Your task to perform on an android device: Open battery settings Image 0: 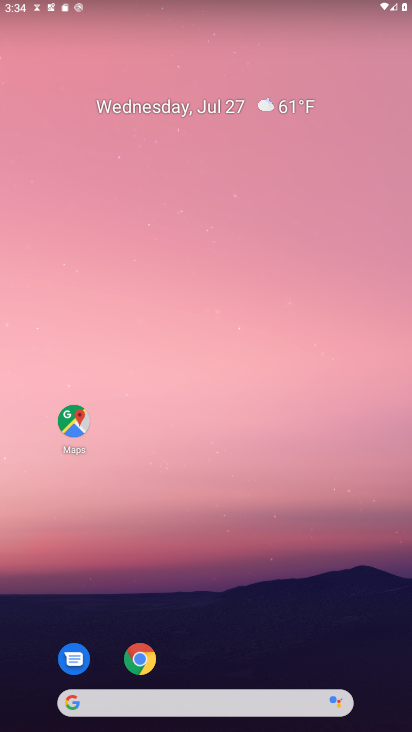
Step 0: press home button
Your task to perform on an android device: Open battery settings Image 1: 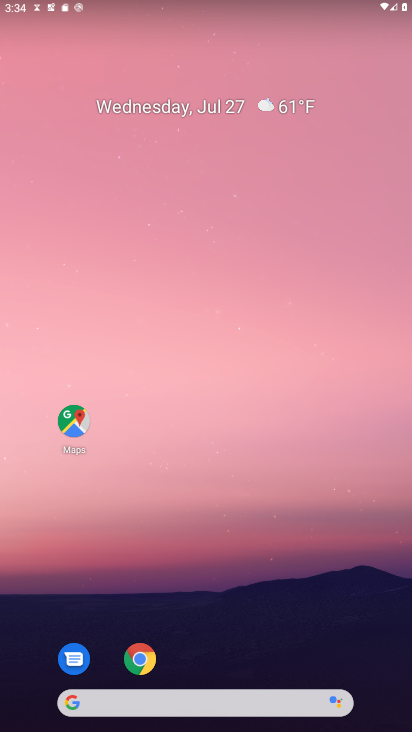
Step 1: drag from (238, 688) to (185, 24)
Your task to perform on an android device: Open battery settings Image 2: 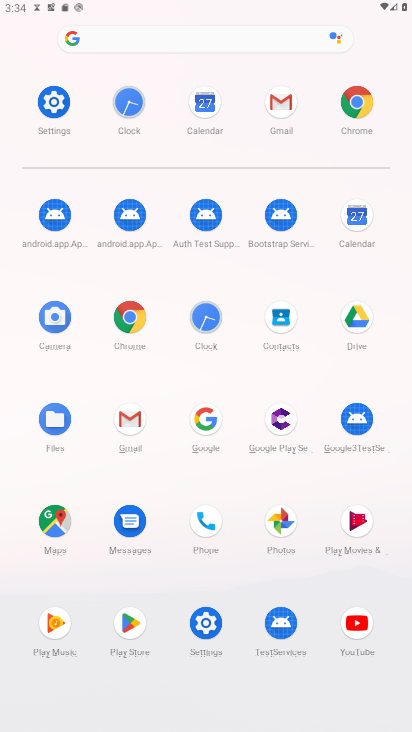
Step 2: click (54, 107)
Your task to perform on an android device: Open battery settings Image 3: 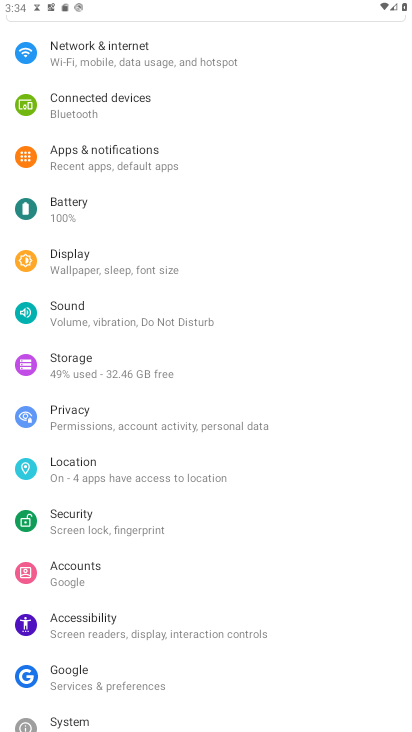
Step 3: click (104, 208)
Your task to perform on an android device: Open battery settings Image 4: 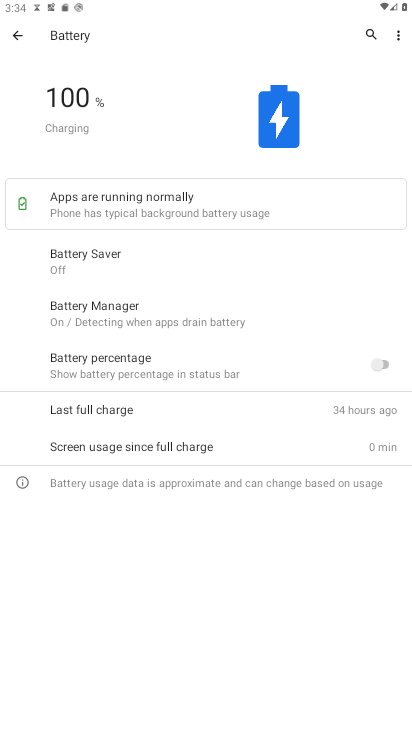
Step 4: task complete